Your task to perform on an android device: Open Reddit.com Image 0: 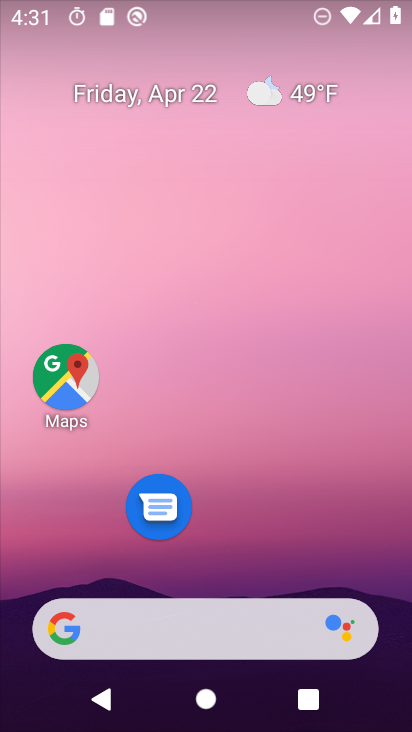
Step 0: drag from (199, 538) to (300, 10)
Your task to perform on an android device: Open Reddit.com Image 1: 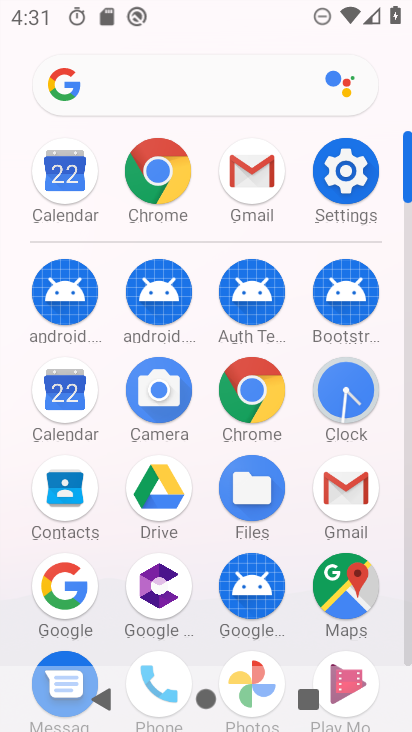
Step 1: click (154, 181)
Your task to perform on an android device: Open Reddit.com Image 2: 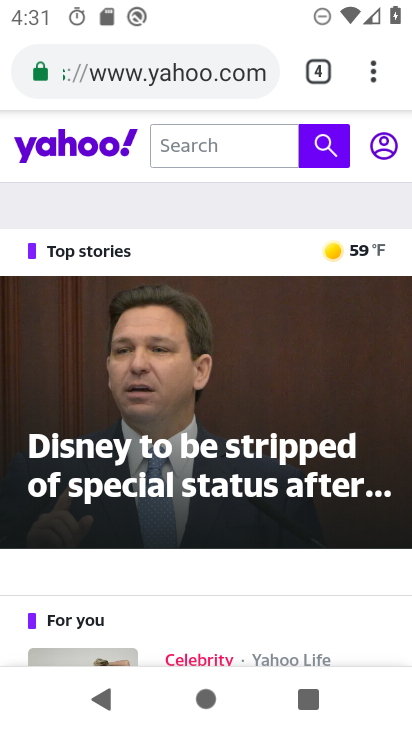
Step 2: click (316, 65)
Your task to perform on an android device: Open Reddit.com Image 3: 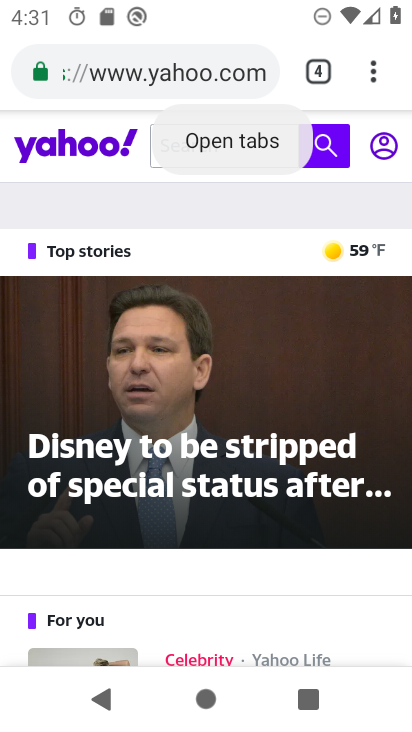
Step 3: click (312, 76)
Your task to perform on an android device: Open Reddit.com Image 4: 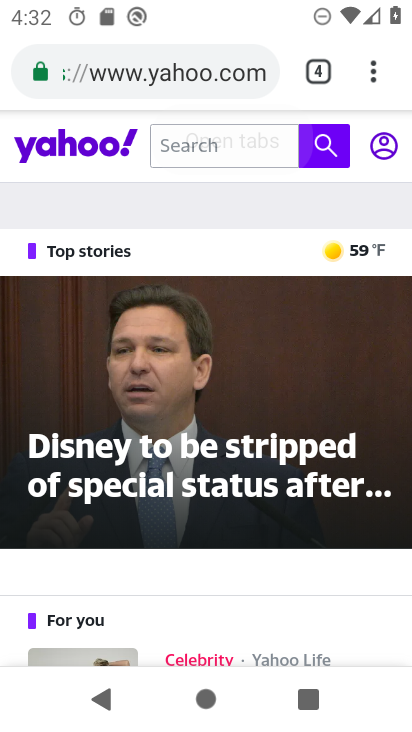
Step 4: click (318, 71)
Your task to perform on an android device: Open Reddit.com Image 5: 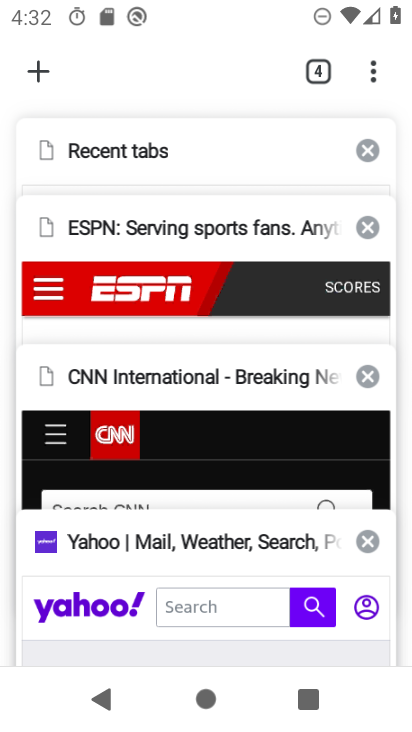
Step 5: click (37, 62)
Your task to perform on an android device: Open Reddit.com Image 6: 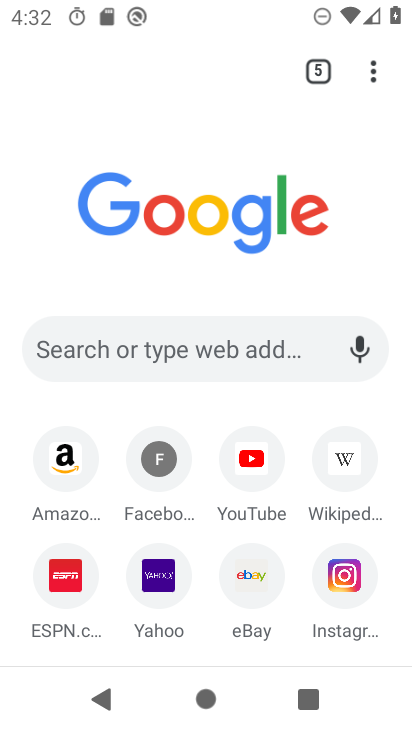
Step 6: click (109, 344)
Your task to perform on an android device: Open Reddit.com Image 7: 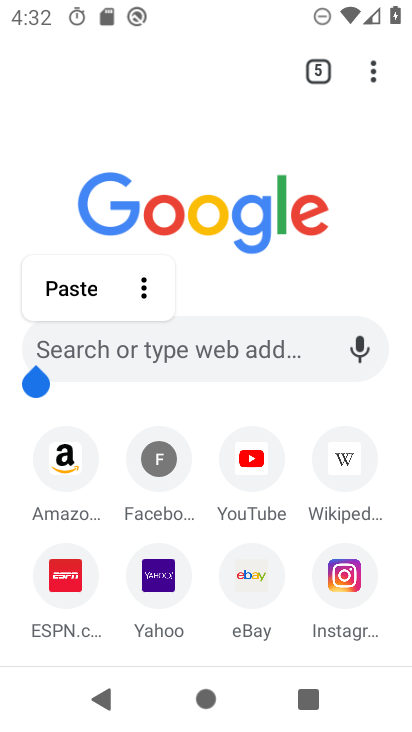
Step 7: click (153, 353)
Your task to perform on an android device: Open Reddit.com Image 8: 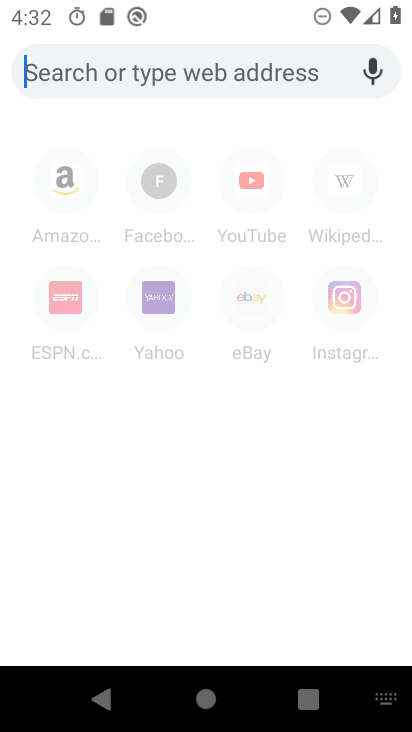
Step 8: type "reddit.com"
Your task to perform on an android device: Open Reddit.com Image 9: 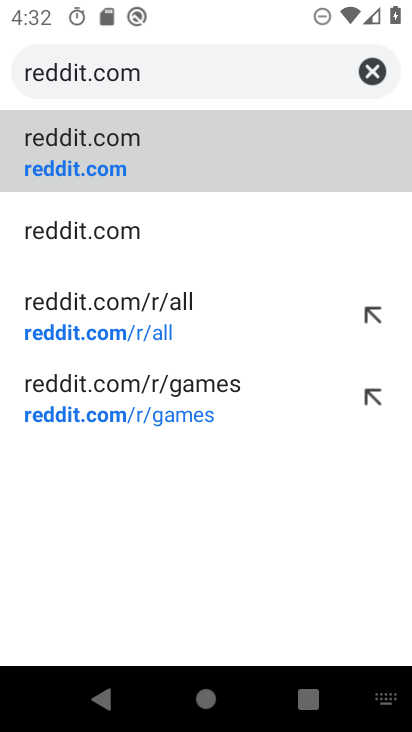
Step 9: click (221, 168)
Your task to perform on an android device: Open Reddit.com Image 10: 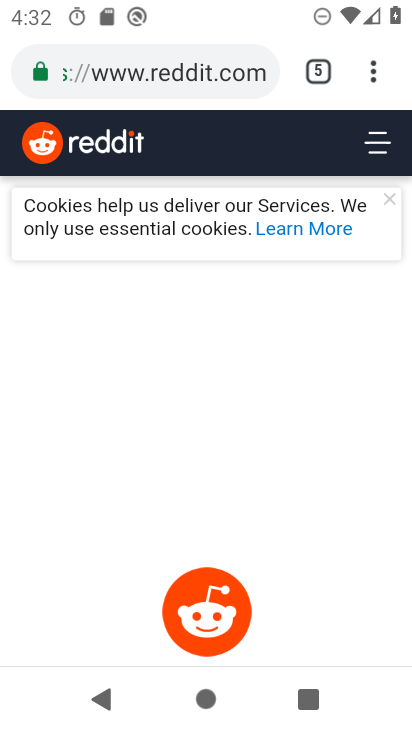
Step 10: task complete